Your task to perform on an android device: set default search engine in the chrome app Image 0: 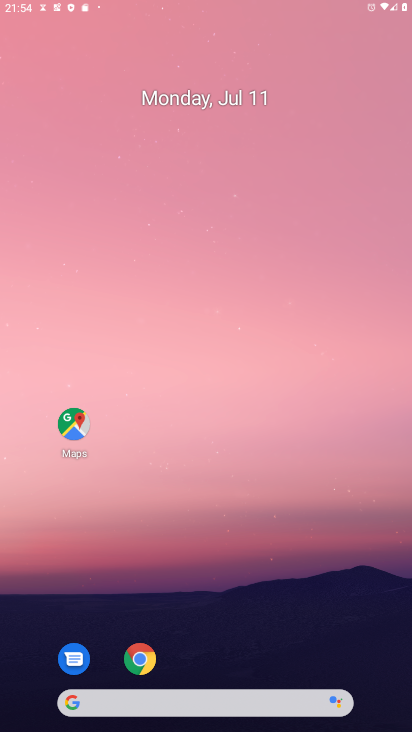
Step 0: drag from (182, 617) to (316, 71)
Your task to perform on an android device: set default search engine in the chrome app Image 1: 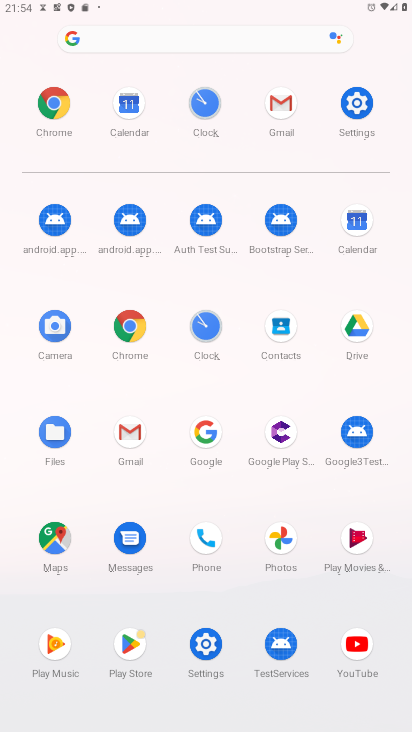
Step 1: click (129, 327)
Your task to perform on an android device: set default search engine in the chrome app Image 2: 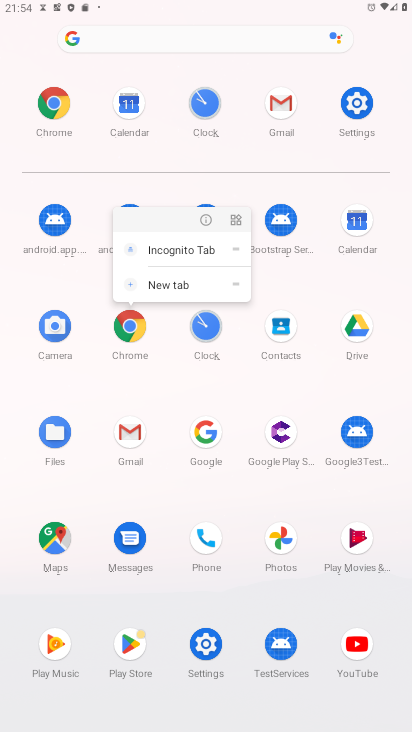
Step 2: click (204, 217)
Your task to perform on an android device: set default search engine in the chrome app Image 3: 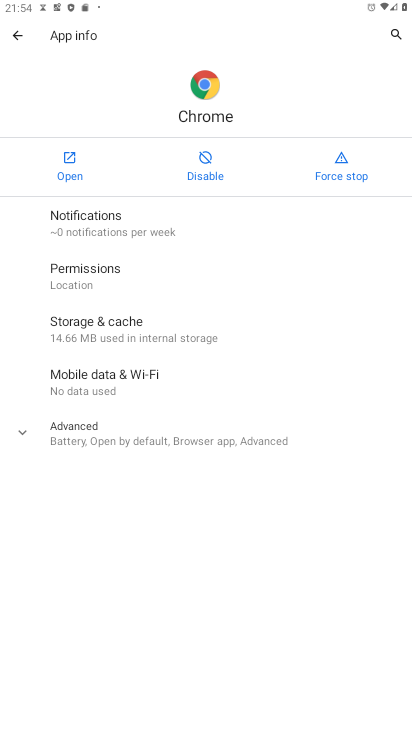
Step 3: click (71, 162)
Your task to perform on an android device: set default search engine in the chrome app Image 4: 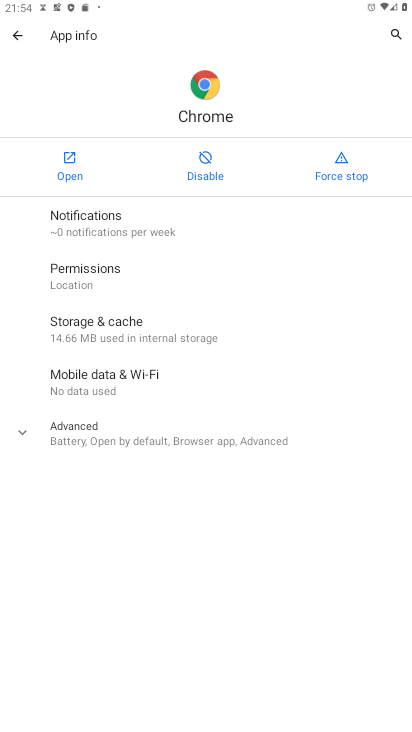
Step 4: click (71, 162)
Your task to perform on an android device: set default search engine in the chrome app Image 5: 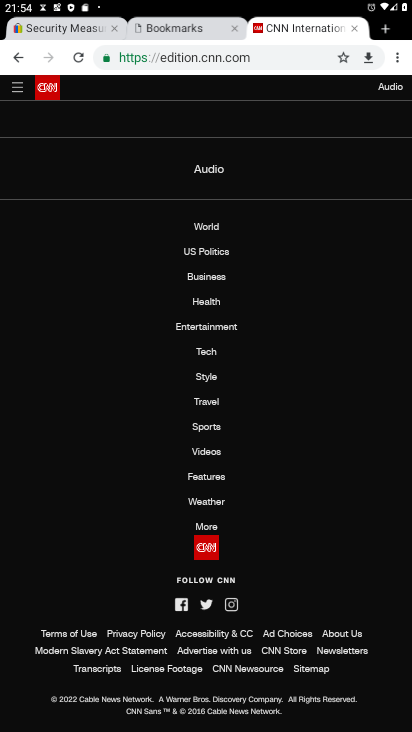
Step 5: click (396, 51)
Your task to perform on an android device: set default search engine in the chrome app Image 6: 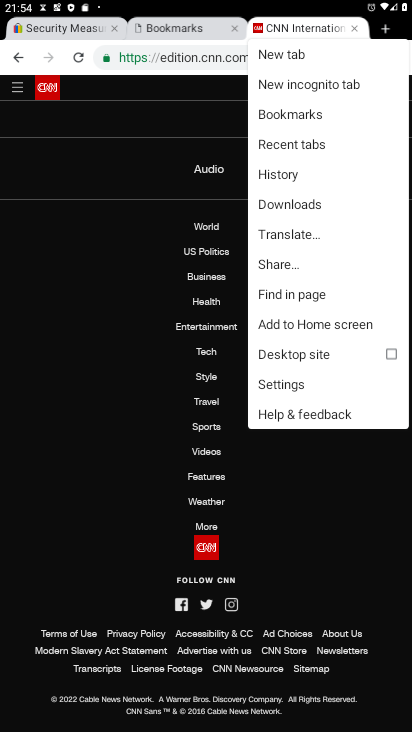
Step 6: click (294, 386)
Your task to perform on an android device: set default search engine in the chrome app Image 7: 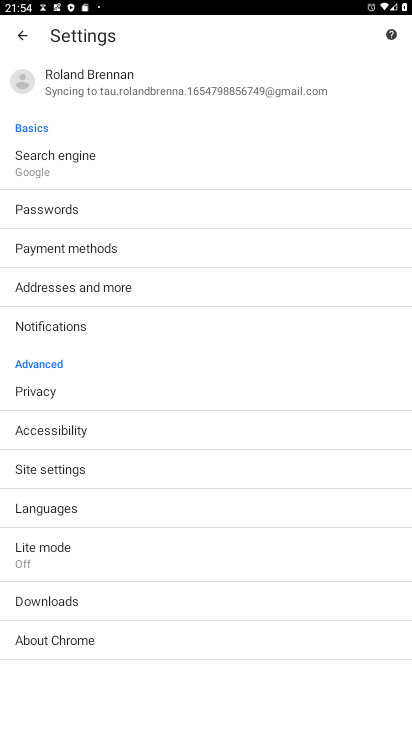
Step 7: click (106, 154)
Your task to perform on an android device: set default search engine in the chrome app Image 8: 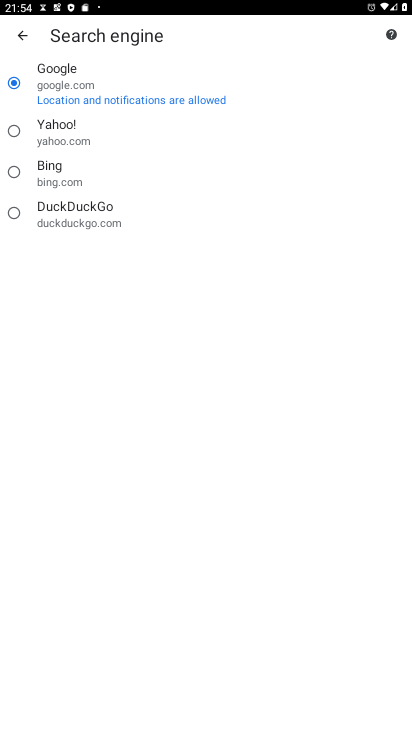
Step 8: drag from (236, 297) to (293, 692)
Your task to perform on an android device: set default search engine in the chrome app Image 9: 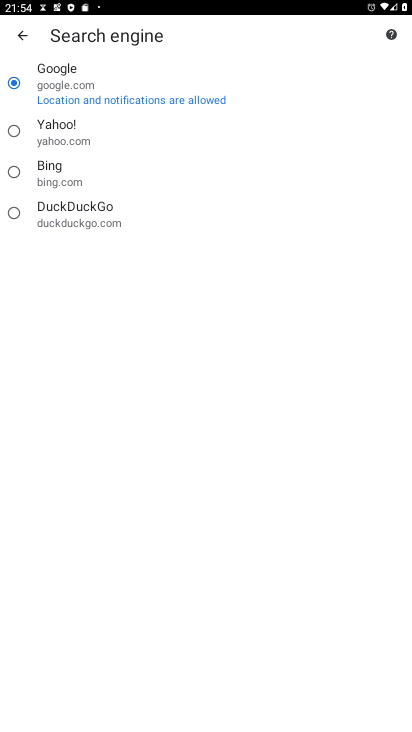
Step 9: drag from (193, 263) to (166, 622)
Your task to perform on an android device: set default search engine in the chrome app Image 10: 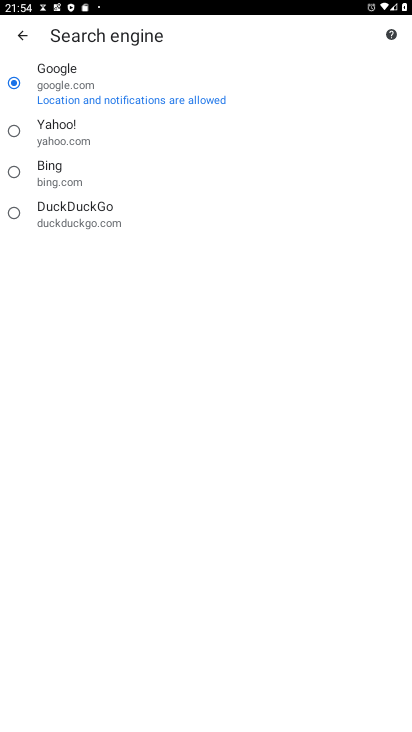
Step 10: drag from (238, 144) to (262, 675)
Your task to perform on an android device: set default search engine in the chrome app Image 11: 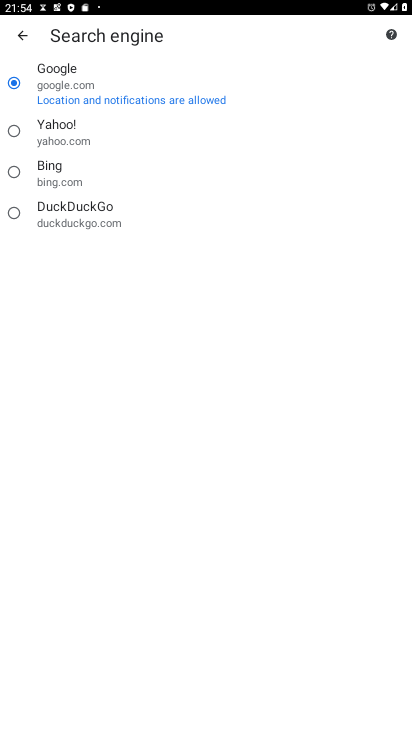
Step 11: drag from (224, 298) to (277, 659)
Your task to perform on an android device: set default search engine in the chrome app Image 12: 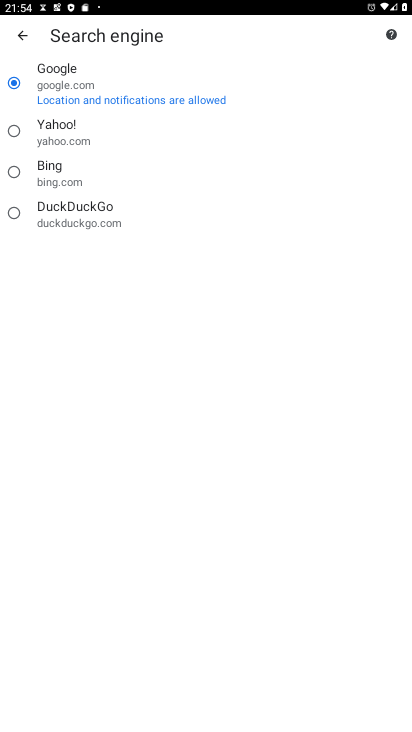
Step 12: drag from (199, 351) to (245, 642)
Your task to perform on an android device: set default search engine in the chrome app Image 13: 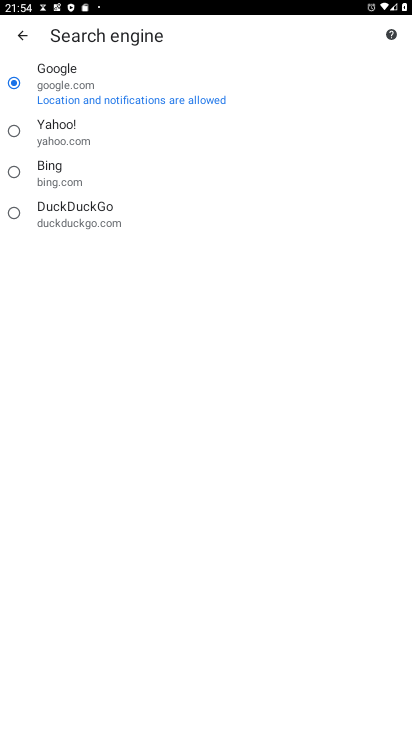
Step 13: drag from (208, 283) to (232, 479)
Your task to perform on an android device: set default search engine in the chrome app Image 14: 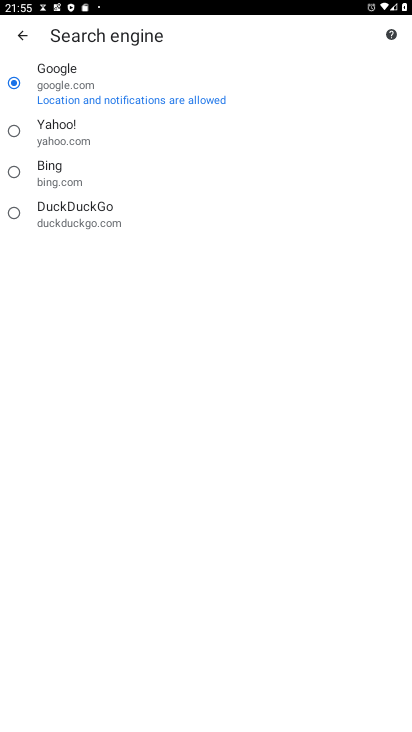
Step 14: click (178, 317)
Your task to perform on an android device: set default search engine in the chrome app Image 15: 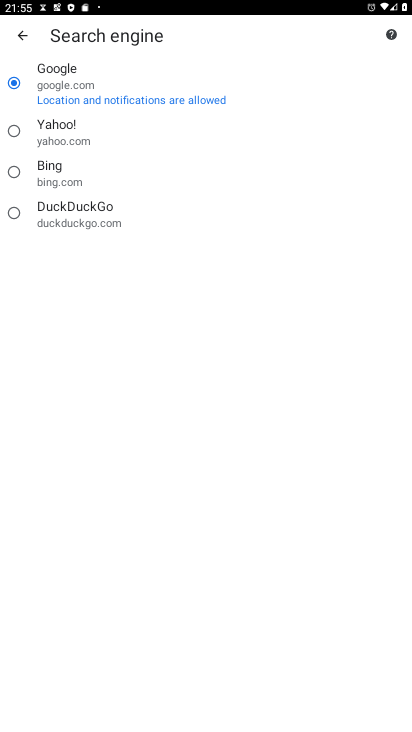
Step 15: task complete